Your task to perform on an android device: Open wifi settings Image 0: 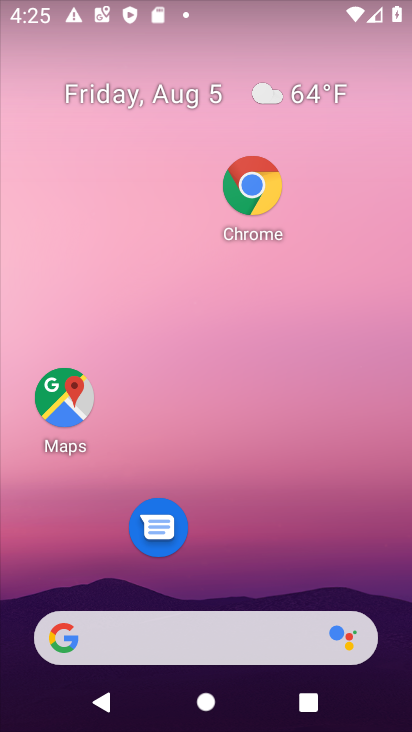
Step 0: drag from (192, 593) to (186, 26)
Your task to perform on an android device: Open wifi settings Image 1: 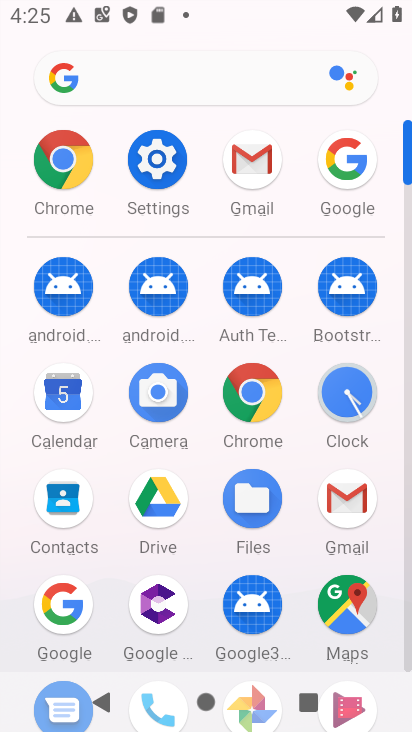
Step 1: click (160, 159)
Your task to perform on an android device: Open wifi settings Image 2: 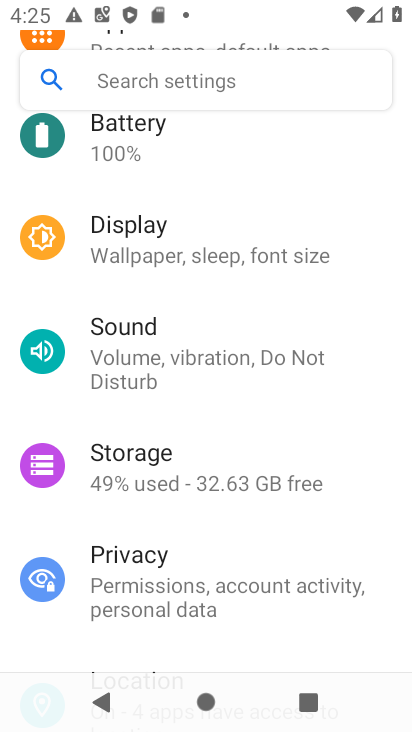
Step 2: drag from (145, 138) to (182, 509)
Your task to perform on an android device: Open wifi settings Image 3: 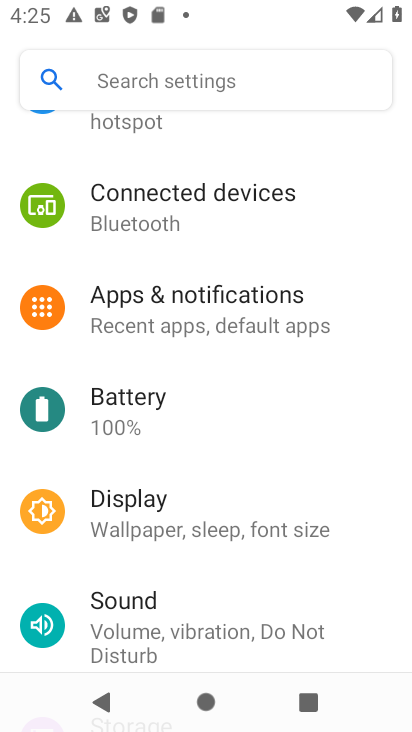
Step 3: drag from (130, 137) to (158, 495)
Your task to perform on an android device: Open wifi settings Image 4: 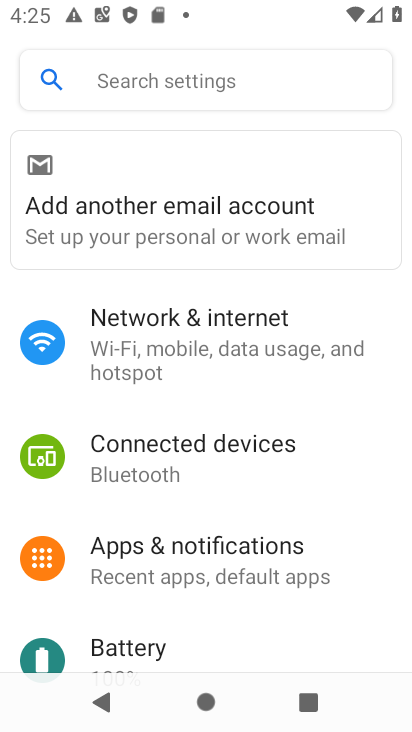
Step 4: click (124, 330)
Your task to perform on an android device: Open wifi settings Image 5: 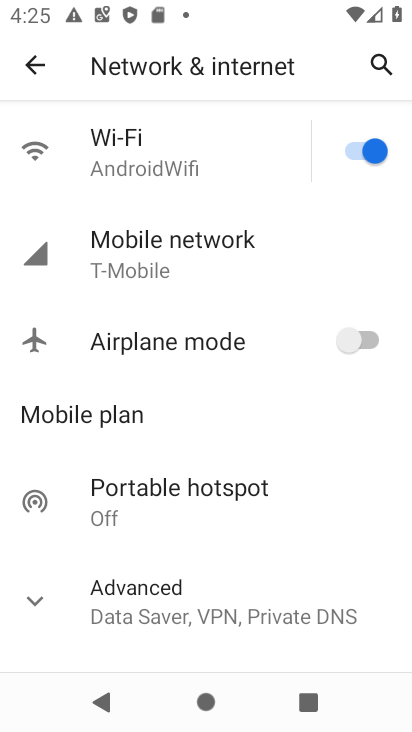
Step 5: click (200, 164)
Your task to perform on an android device: Open wifi settings Image 6: 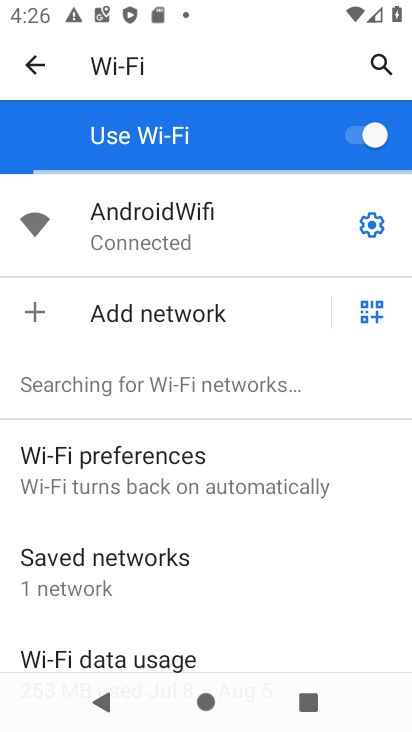
Step 6: task complete